Your task to perform on an android device: Toggle the flashlight Image 0: 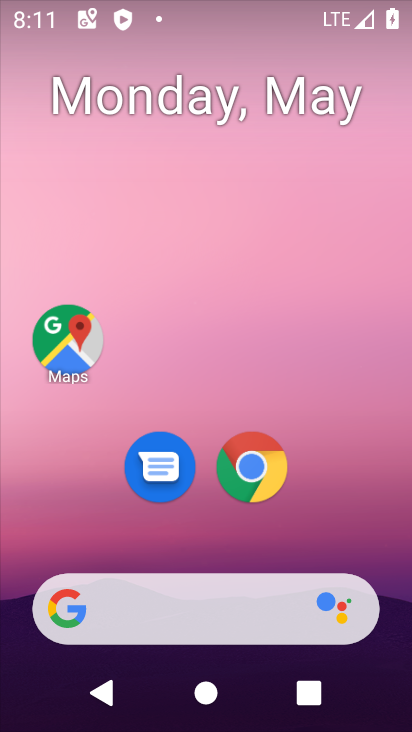
Step 0: drag from (284, 7) to (211, 461)
Your task to perform on an android device: Toggle the flashlight Image 1: 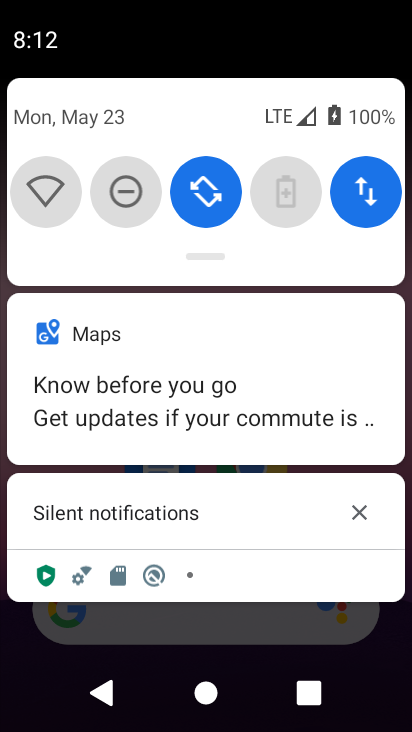
Step 1: task complete